Your task to perform on an android device: Open Google Chrome Image 0: 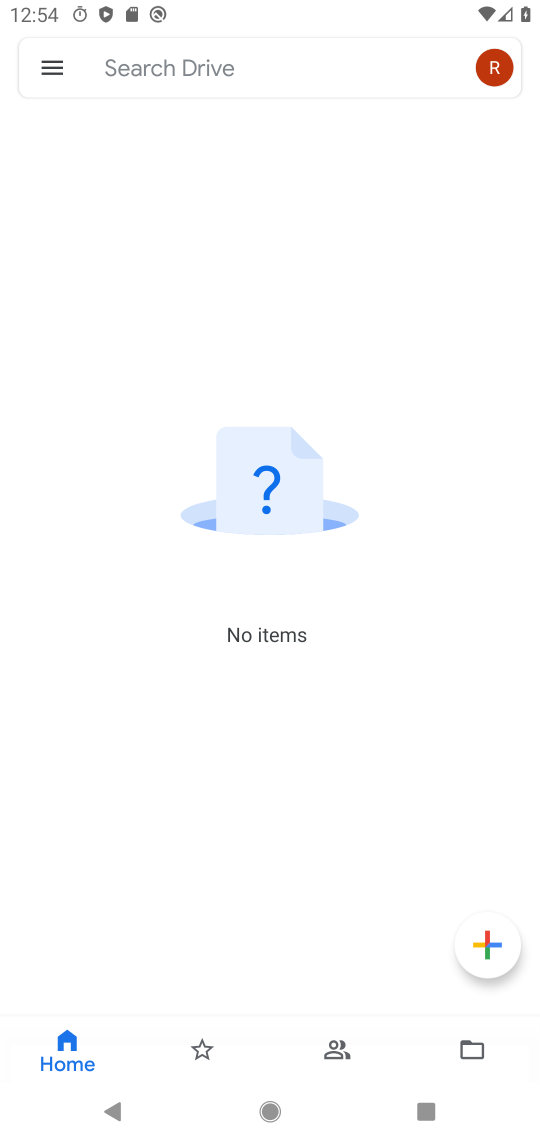
Step 0: press home button
Your task to perform on an android device: Open Google Chrome Image 1: 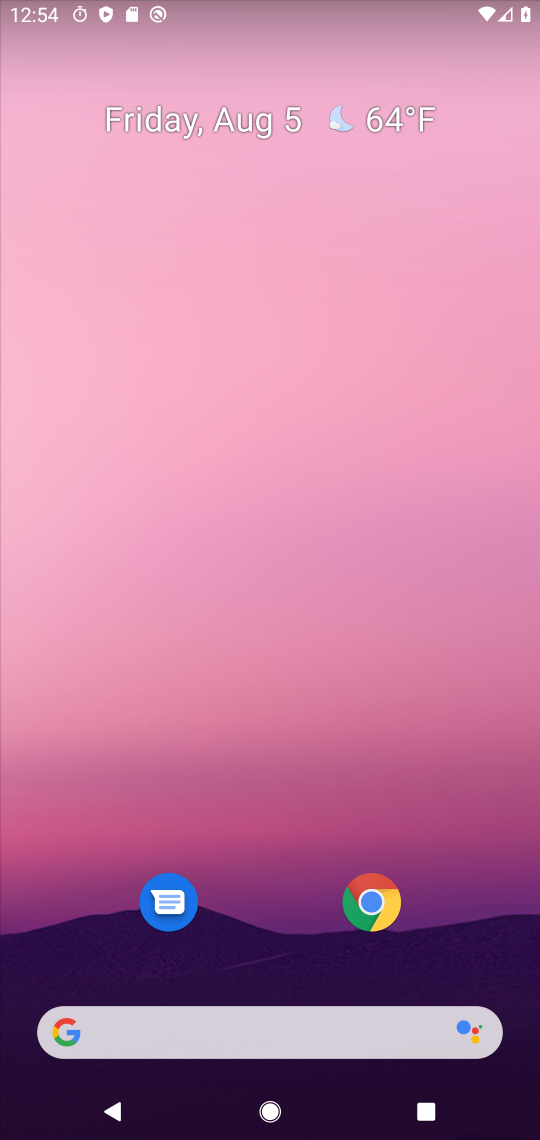
Step 1: drag from (370, 1068) to (219, 204)
Your task to perform on an android device: Open Google Chrome Image 2: 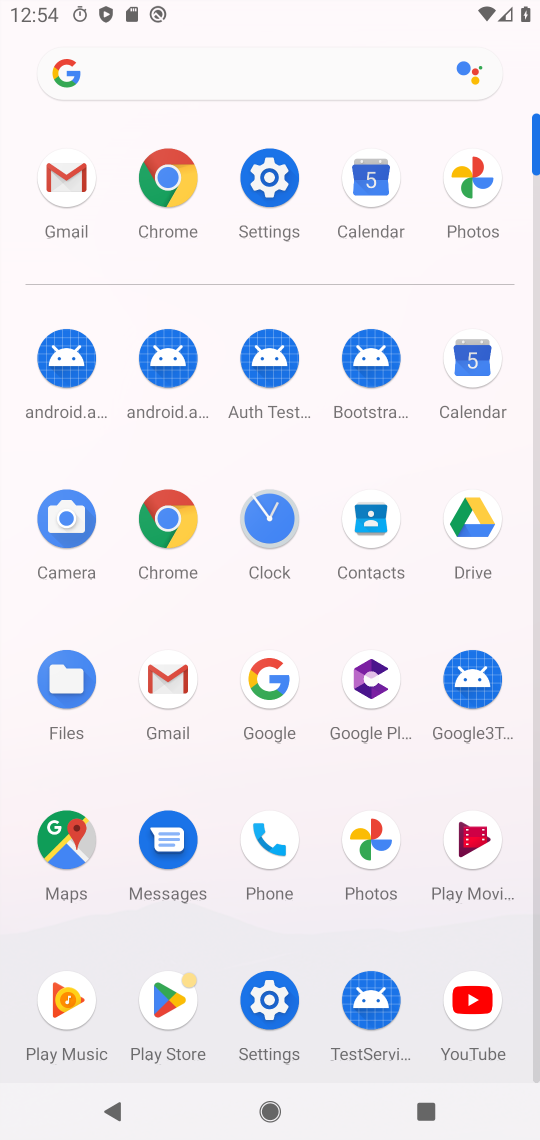
Step 2: click (174, 189)
Your task to perform on an android device: Open Google Chrome Image 3: 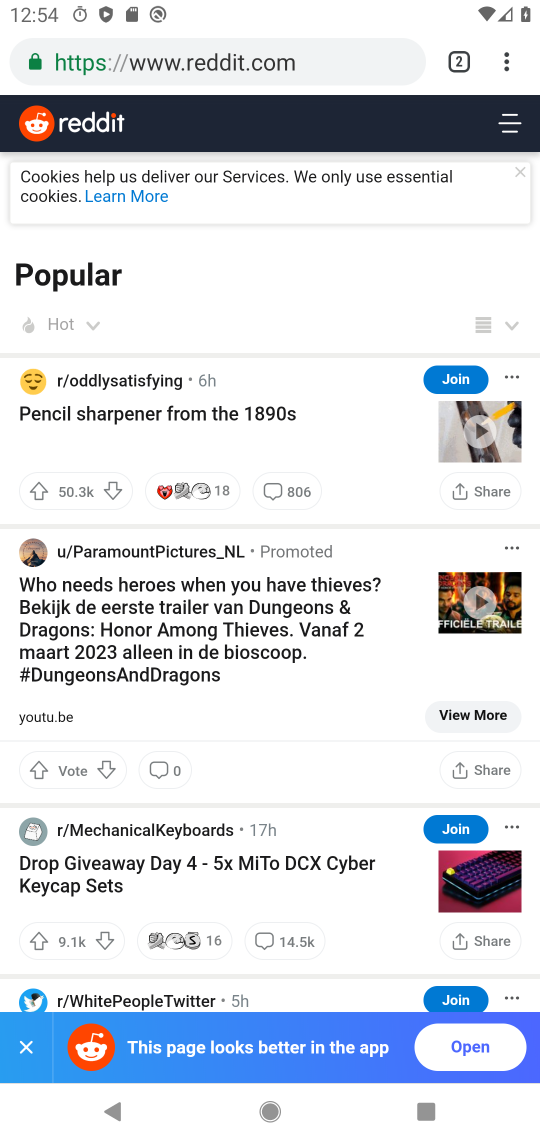
Step 3: click (469, 53)
Your task to perform on an android device: Open Google Chrome Image 4: 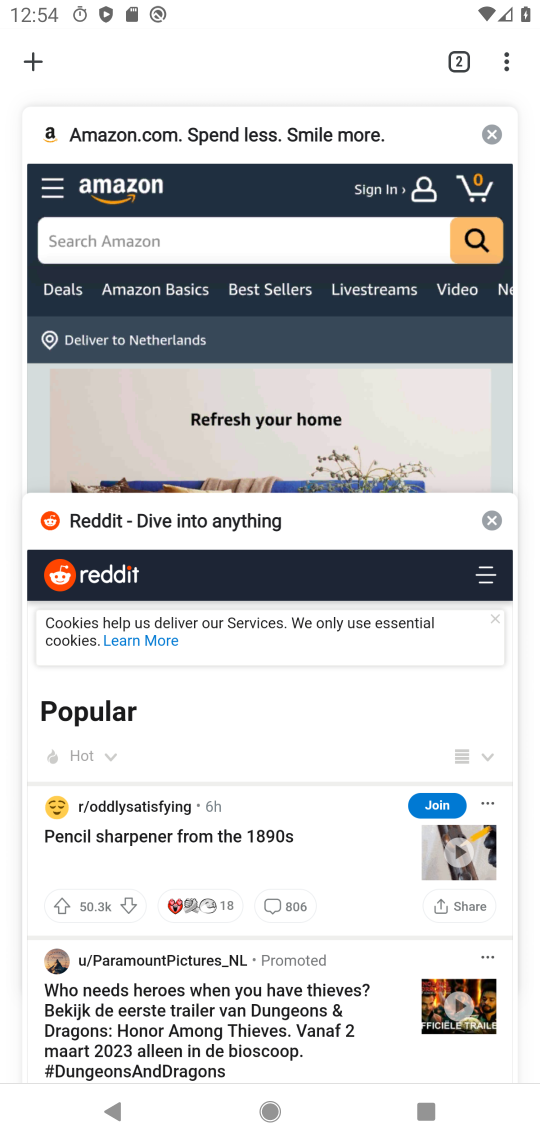
Step 4: click (21, 52)
Your task to perform on an android device: Open Google Chrome Image 5: 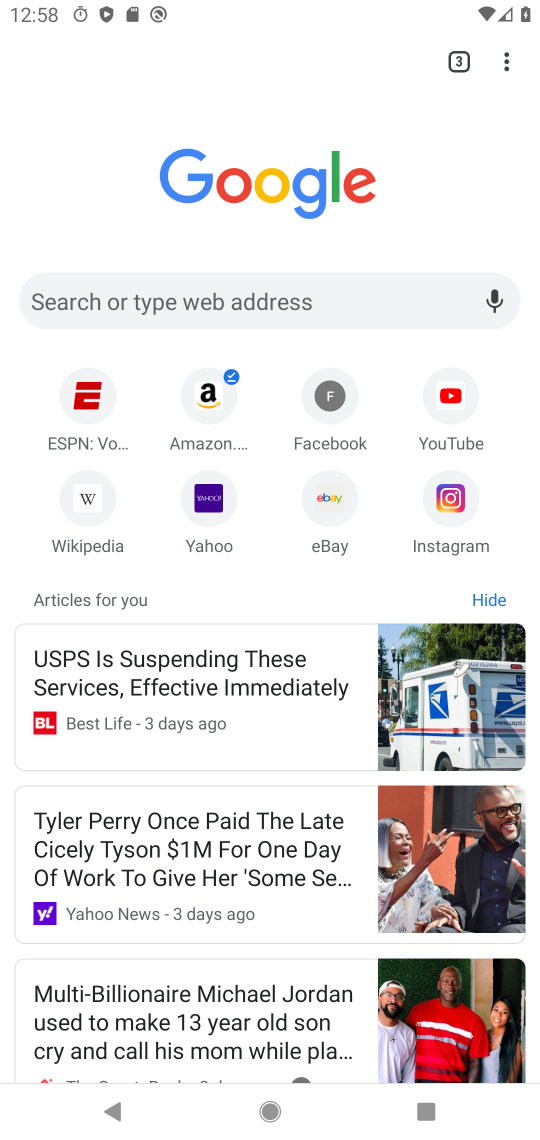
Step 5: task complete